Your task to perform on an android device: change the clock display to show seconds Image 0: 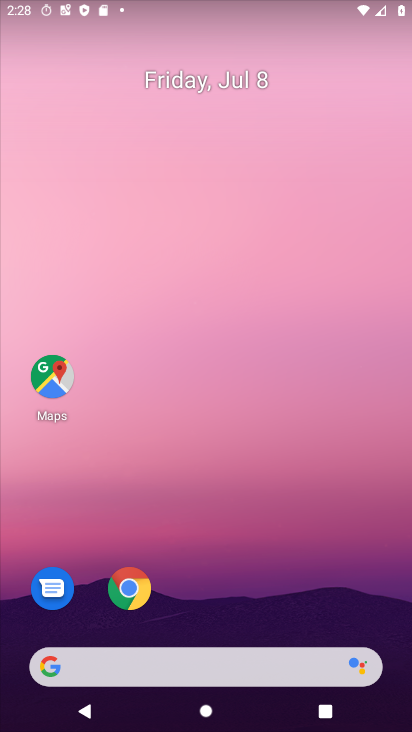
Step 0: drag from (261, 634) to (283, 216)
Your task to perform on an android device: change the clock display to show seconds Image 1: 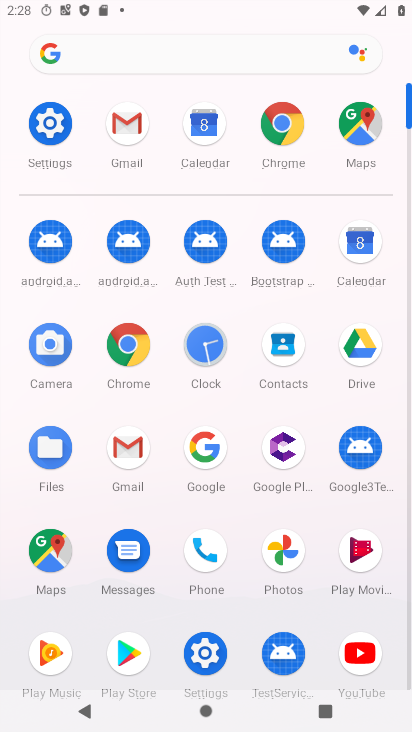
Step 1: click (200, 351)
Your task to perform on an android device: change the clock display to show seconds Image 2: 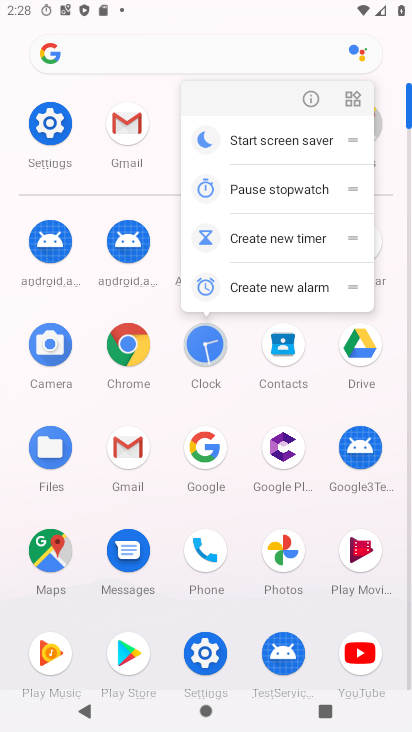
Step 2: click (205, 341)
Your task to perform on an android device: change the clock display to show seconds Image 3: 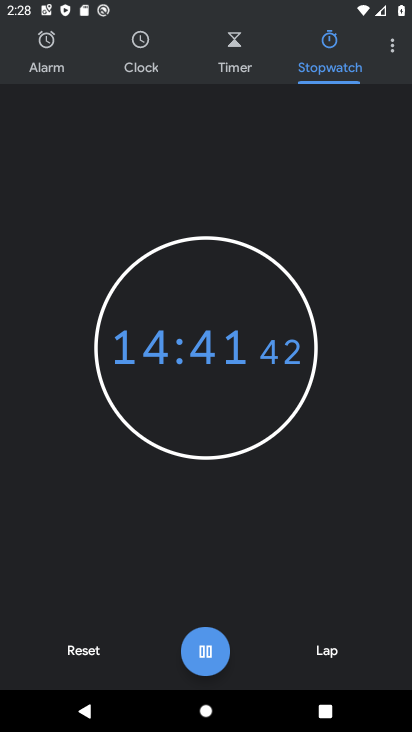
Step 3: click (388, 48)
Your task to perform on an android device: change the clock display to show seconds Image 4: 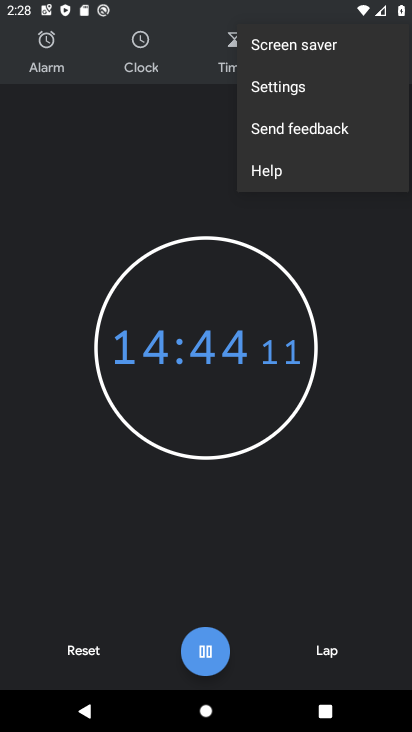
Step 4: click (304, 91)
Your task to perform on an android device: change the clock display to show seconds Image 5: 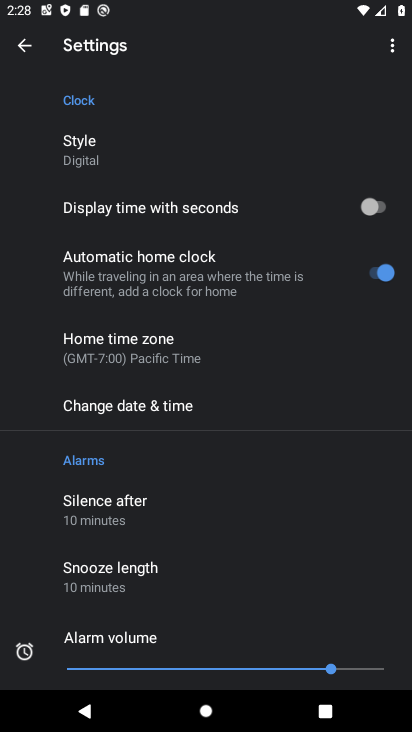
Step 5: click (375, 207)
Your task to perform on an android device: change the clock display to show seconds Image 6: 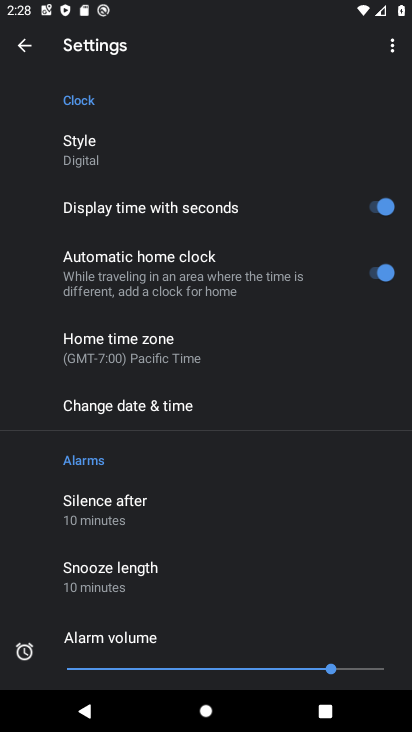
Step 6: task complete